Your task to perform on an android device: turn on translation in the chrome app Image 0: 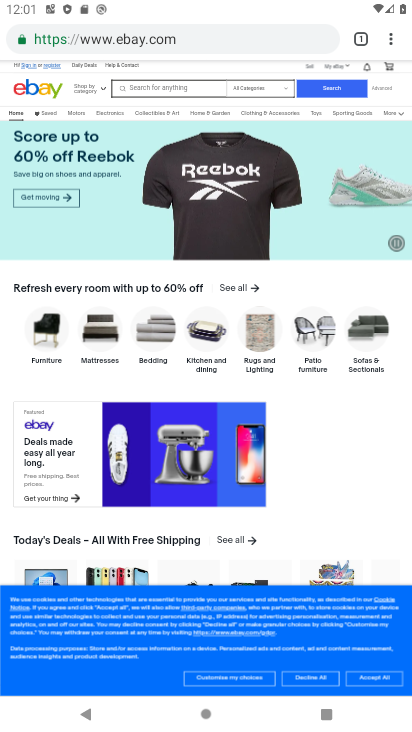
Step 0: click (392, 35)
Your task to perform on an android device: turn on translation in the chrome app Image 1: 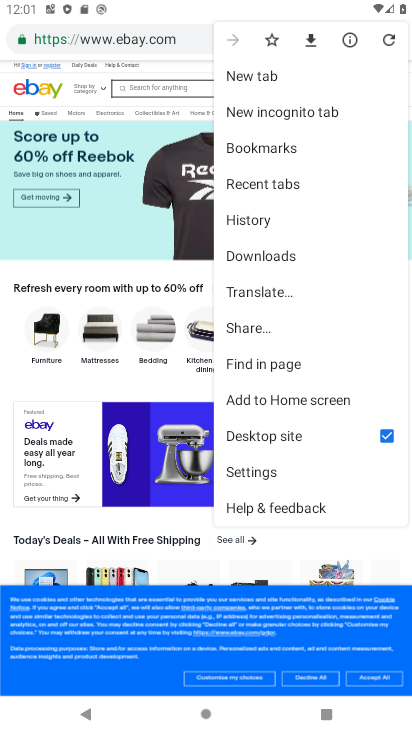
Step 1: click (290, 474)
Your task to perform on an android device: turn on translation in the chrome app Image 2: 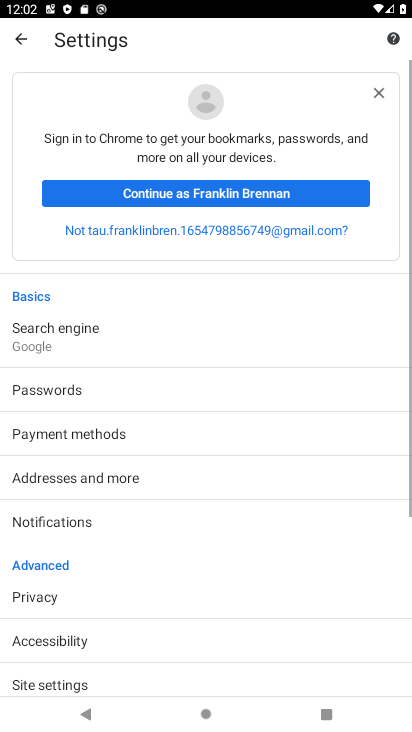
Step 2: drag from (199, 625) to (181, 221)
Your task to perform on an android device: turn on translation in the chrome app Image 3: 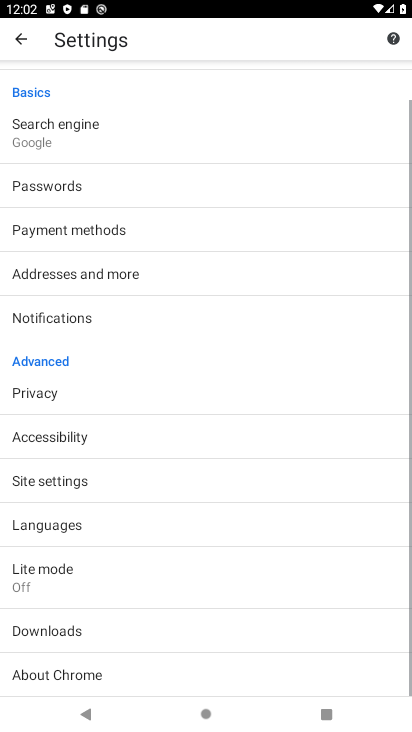
Step 3: click (87, 530)
Your task to perform on an android device: turn on translation in the chrome app Image 4: 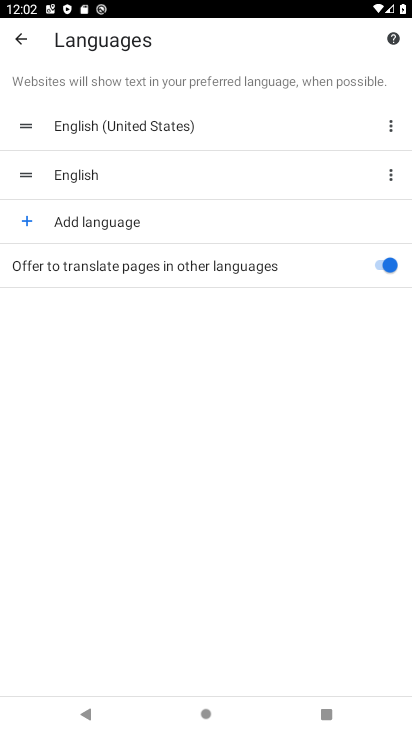
Step 4: task complete